Your task to perform on an android device: Open notification settings Image 0: 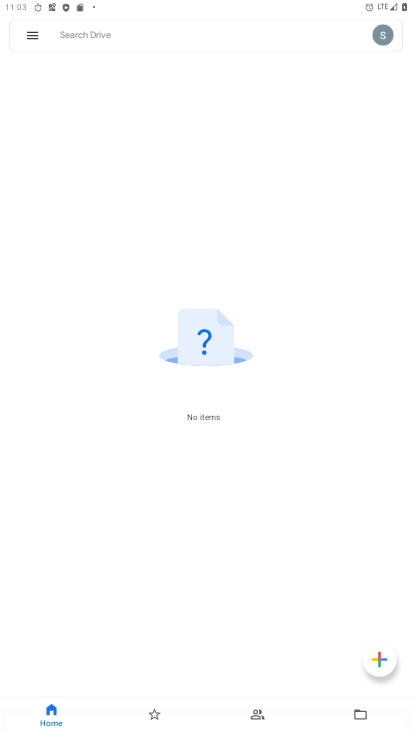
Step 0: press home button
Your task to perform on an android device: Open notification settings Image 1: 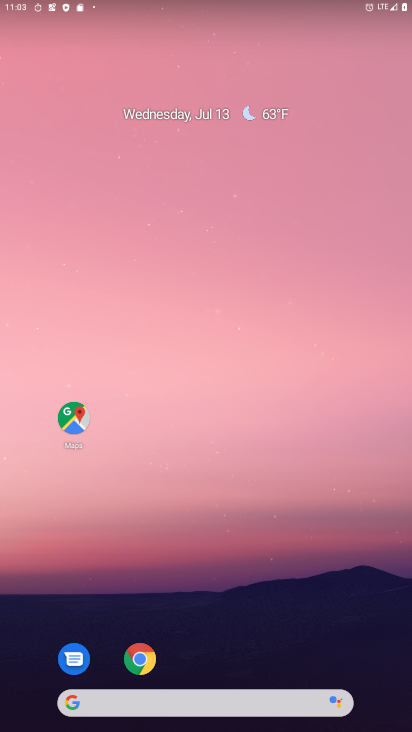
Step 1: drag from (225, 538) to (308, 3)
Your task to perform on an android device: Open notification settings Image 2: 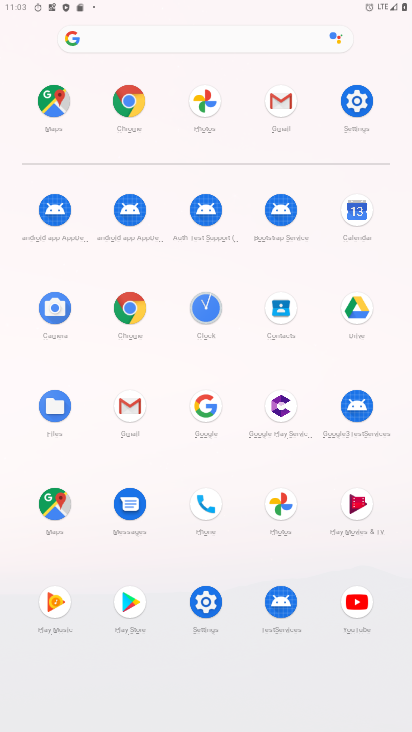
Step 2: click (363, 95)
Your task to perform on an android device: Open notification settings Image 3: 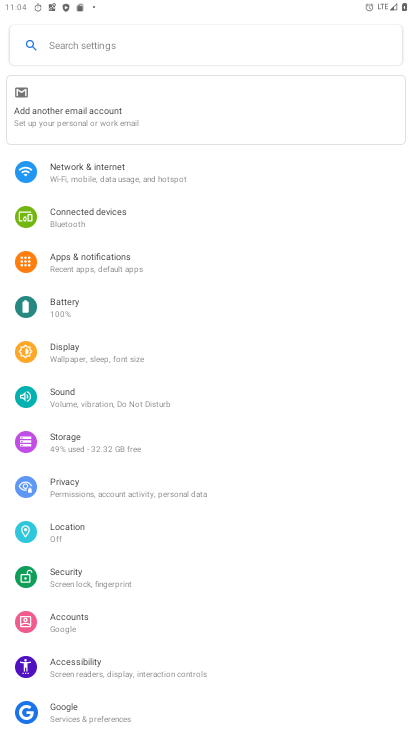
Step 3: click (112, 261)
Your task to perform on an android device: Open notification settings Image 4: 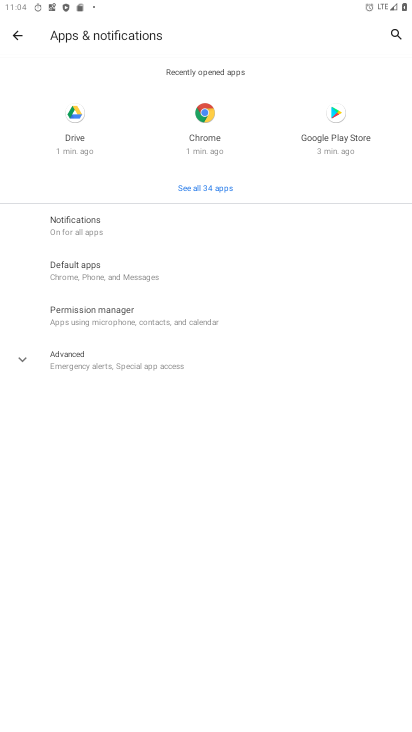
Step 4: click (45, 229)
Your task to perform on an android device: Open notification settings Image 5: 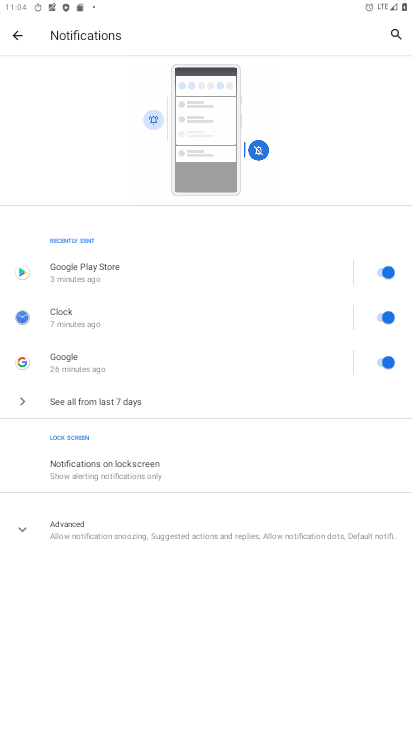
Step 5: task complete